Your task to perform on an android device: Open maps Image 0: 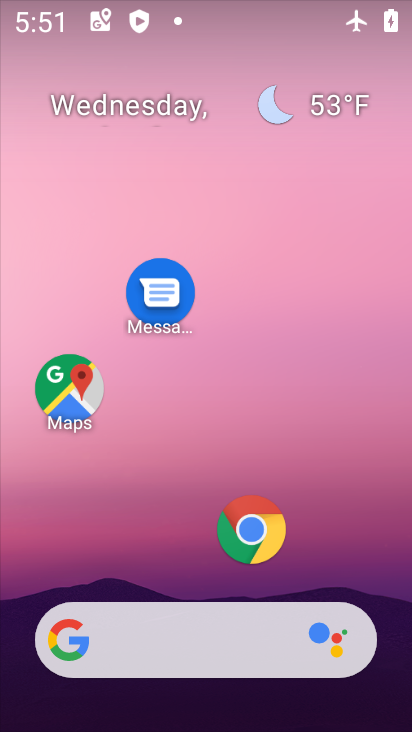
Step 0: click (61, 378)
Your task to perform on an android device: Open maps Image 1: 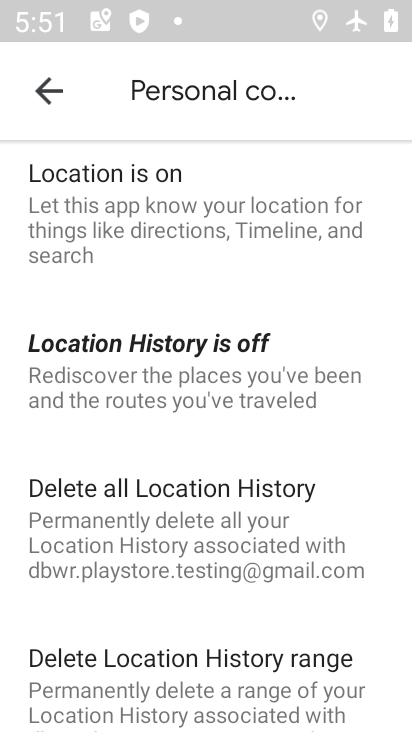
Step 1: click (40, 101)
Your task to perform on an android device: Open maps Image 2: 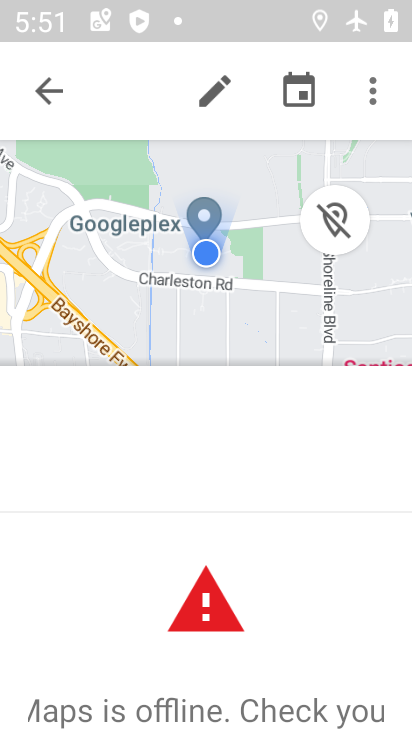
Step 2: click (48, 90)
Your task to perform on an android device: Open maps Image 3: 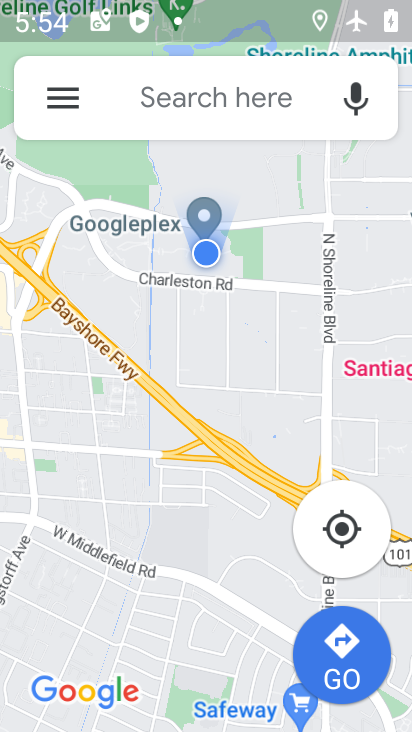
Step 3: task complete